Your task to perform on an android device: open app "Walmart Shopping & Grocery" (install if not already installed) Image 0: 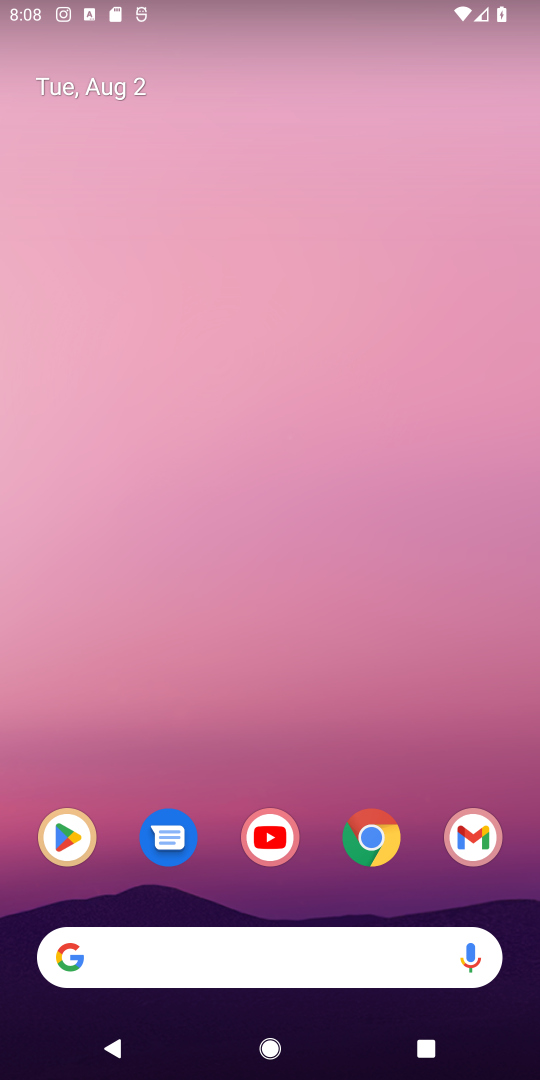
Step 0: click (66, 837)
Your task to perform on an android device: open app "Walmart Shopping & Grocery" (install if not already installed) Image 1: 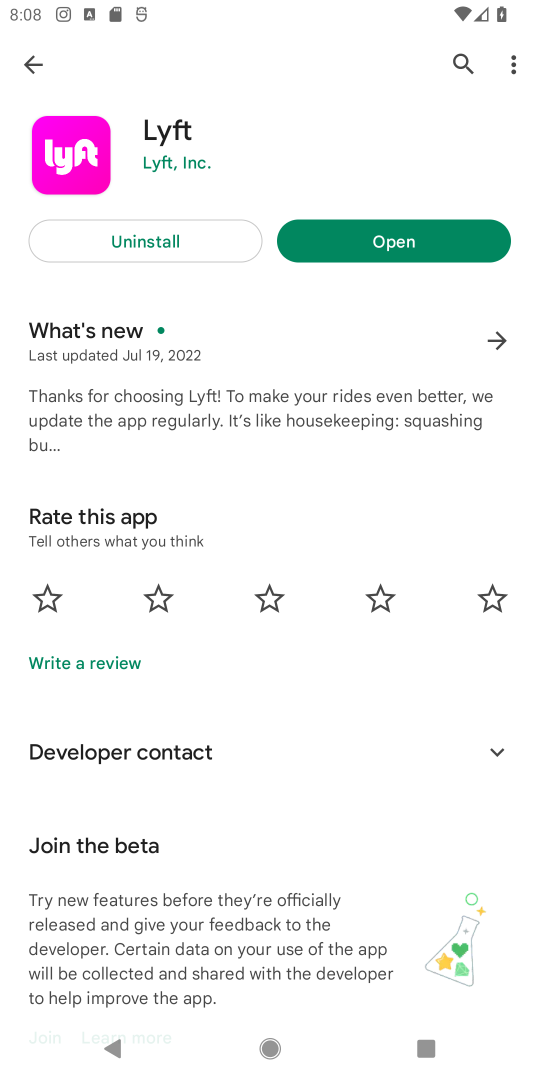
Step 1: click (464, 62)
Your task to perform on an android device: open app "Walmart Shopping & Grocery" (install if not already installed) Image 2: 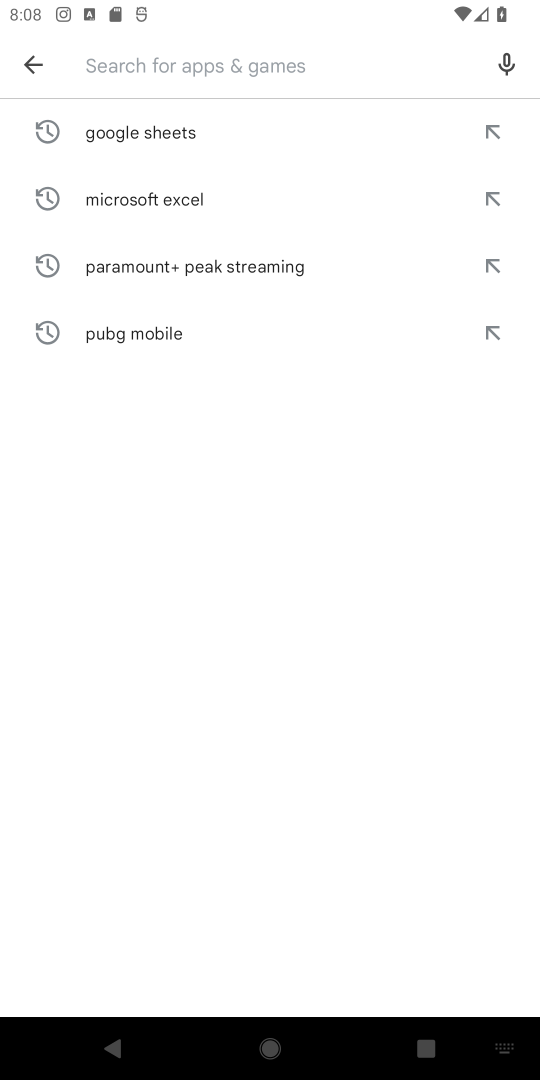
Step 2: type "Walmart Shopping & Grocery"
Your task to perform on an android device: open app "Walmart Shopping & Grocery" (install if not already installed) Image 3: 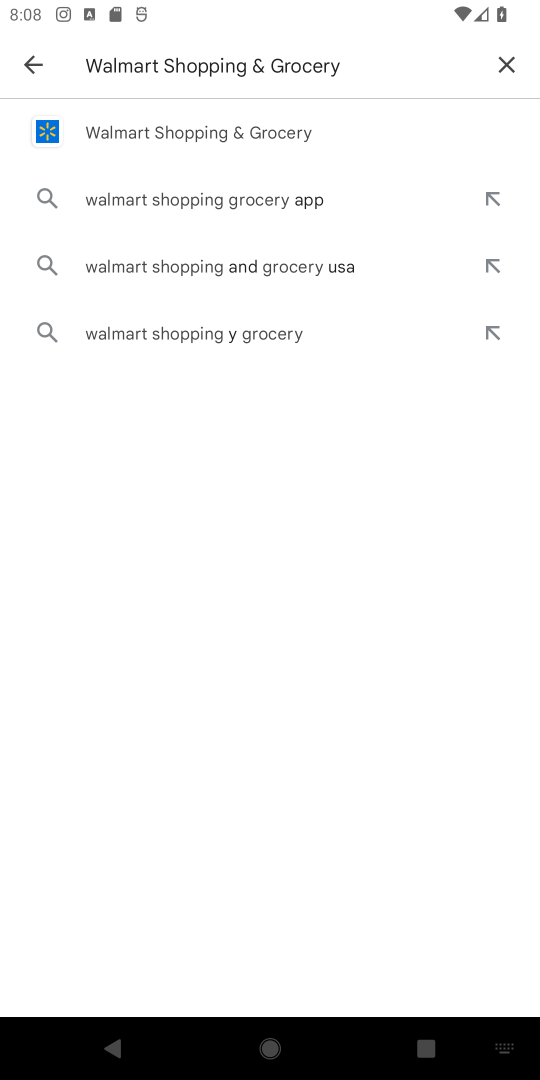
Step 3: click (178, 137)
Your task to perform on an android device: open app "Walmart Shopping & Grocery" (install if not already installed) Image 4: 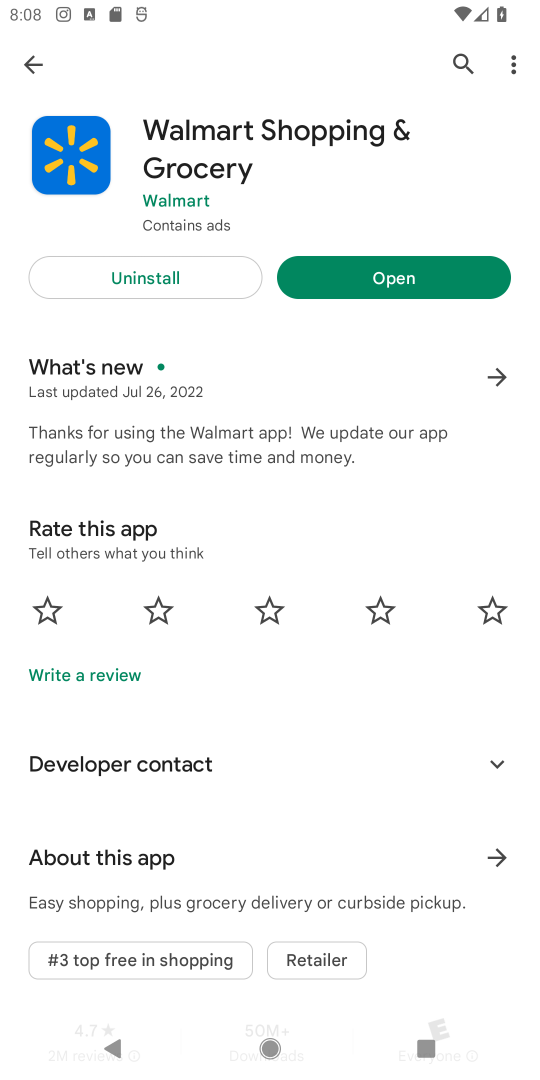
Step 4: click (349, 286)
Your task to perform on an android device: open app "Walmart Shopping & Grocery" (install if not already installed) Image 5: 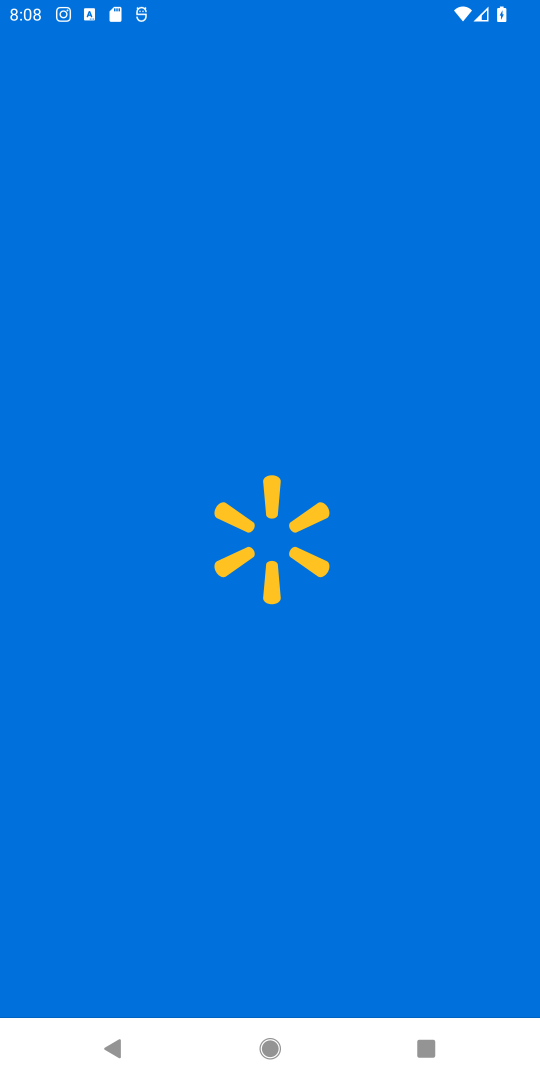
Step 5: task complete